Your task to perform on an android device: open sync settings in chrome Image 0: 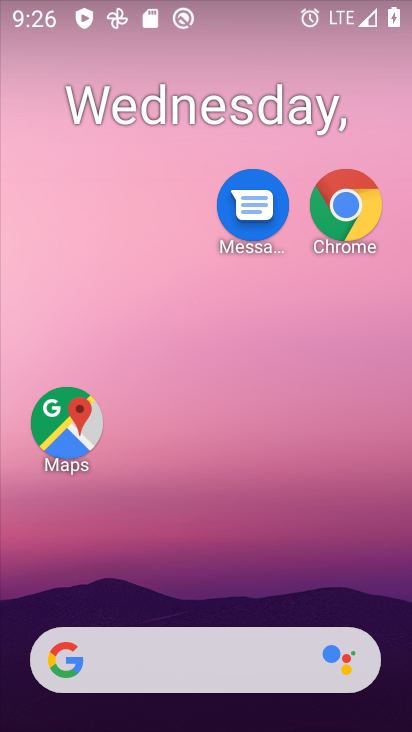
Step 0: drag from (186, 598) to (40, 51)
Your task to perform on an android device: open sync settings in chrome Image 1: 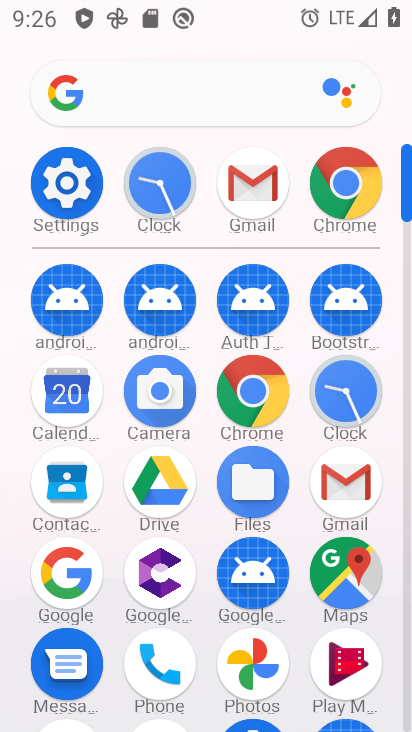
Step 1: click (251, 393)
Your task to perform on an android device: open sync settings in chrome Image 2: 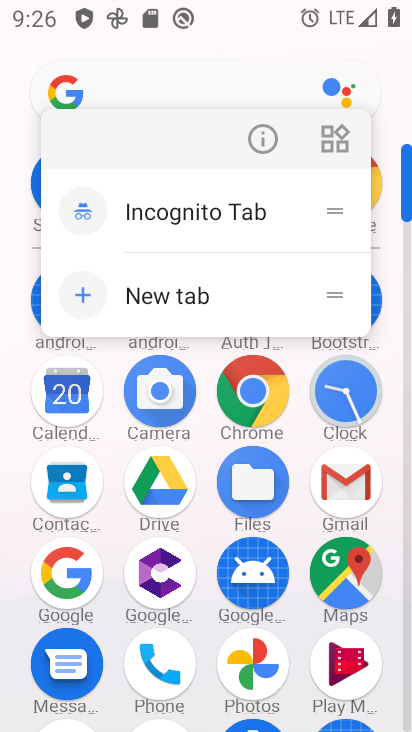
Step 2: click (267, 126)
Your task to perform on an android device: open sync settings in chrome Image 3: 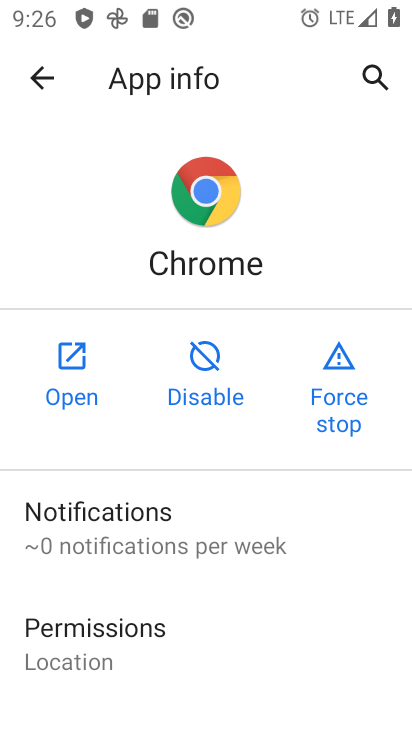
Step 3: click (93, 380)
Your task to perform on an android device: open sync settings in chrome Image 4: 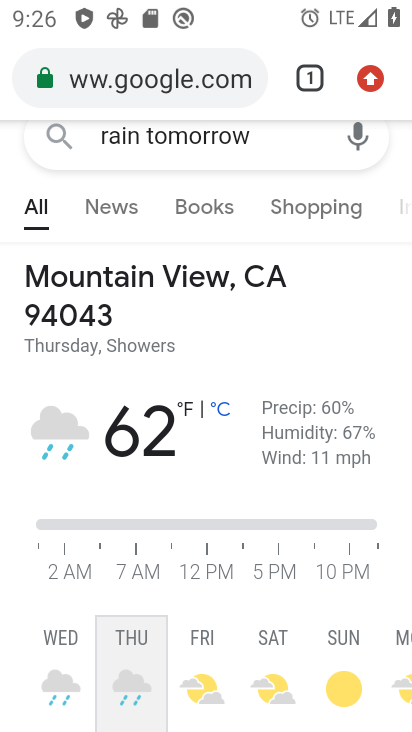
Step 4: drag from (386, 84) to (154, 625)
Your task to perform on an android device: open sync settings in chrome Image 5: 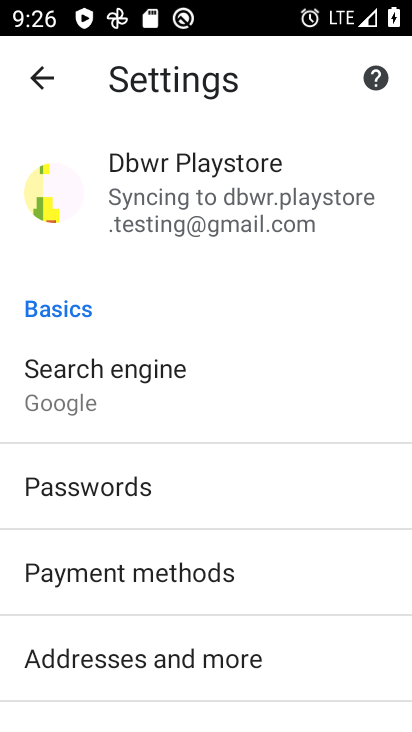
Step 5: drag from (198, 512) to (311, 31)
Your task to perform on an android device: open sync settings in chrome Image 6: 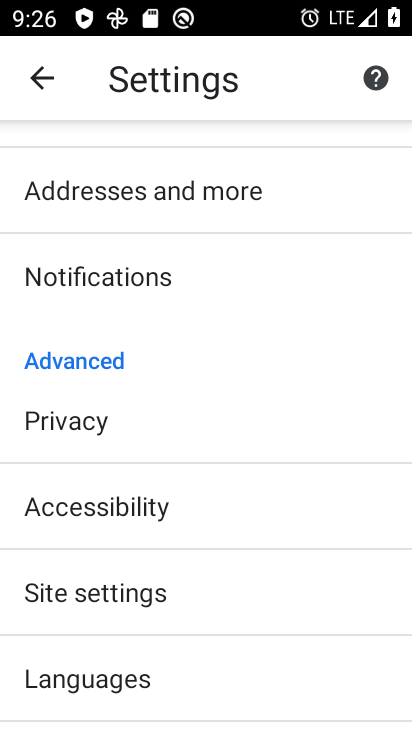
Step 6: click (188, 576)
Your task to perform on an android device: open sync settings in chrome Image 7: 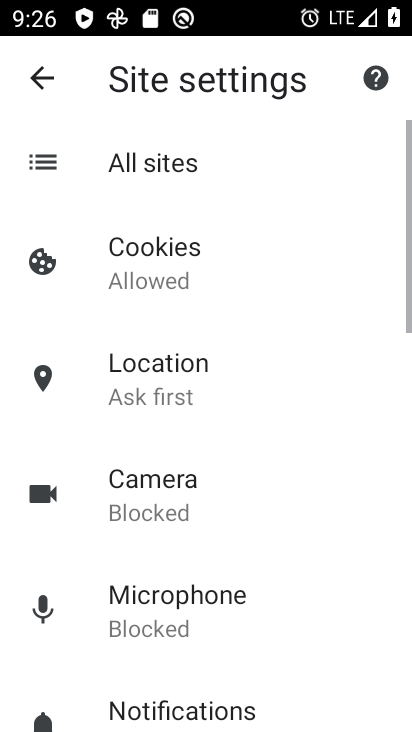
Step 7: drag from (139, 594) to (253, 35)
Your task to perform on an android device: open sync settings in chrome Image 8: 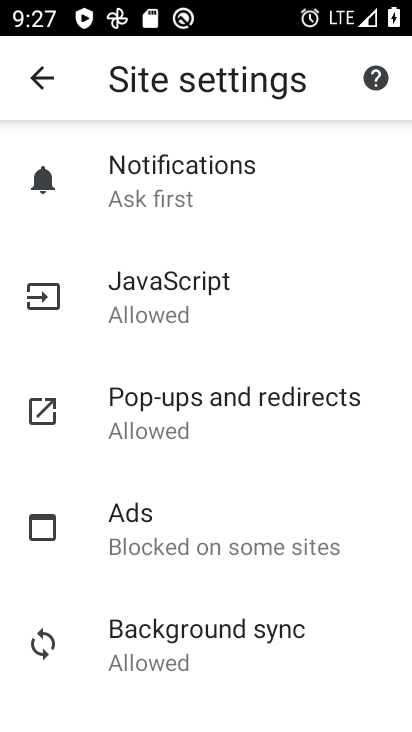
Step 8: click (223, 644)
Your task to perform on an android device: open sync settings in chrome Image 9: 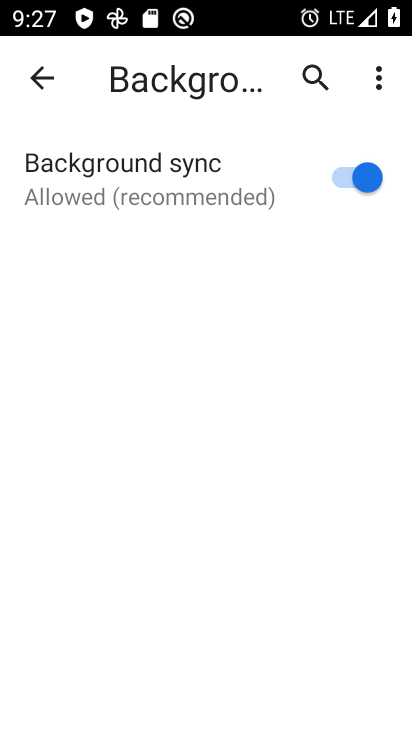
Step 9: task complete